Your task to perform on an android device: Open calendar and show me the first week of next month Image 0: 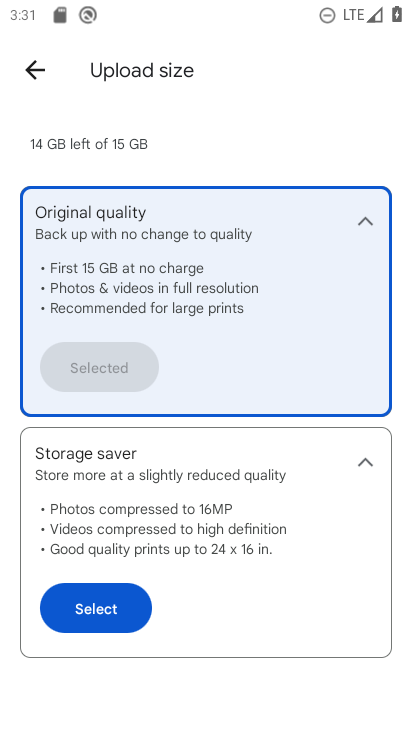
Step 0: press home button
Your task to perform on an android device: Open calendar and show me the first week of next month Image 1: 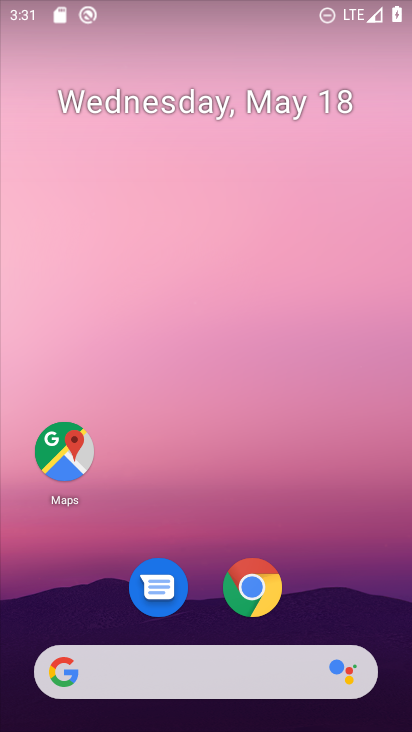
Step 1: drag from (194, 682) to (36, 2)
Your task to perform on an android device: Open calendar and show me the first week of next month Image 2: 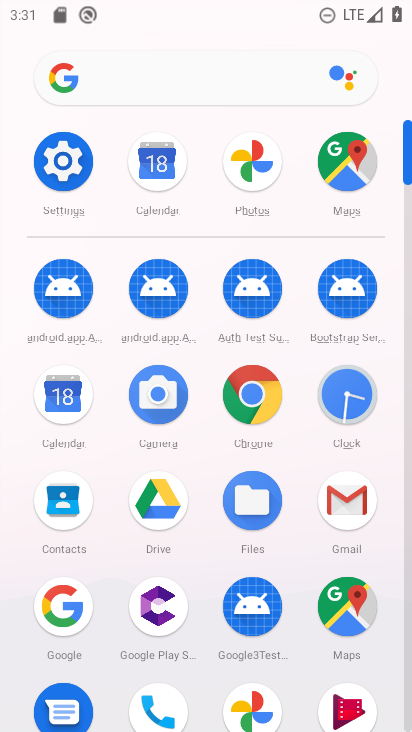
Step 2: click (52, 396)
Your task to perform on an android device: Open calendar and show me the first week of next month Image 3: 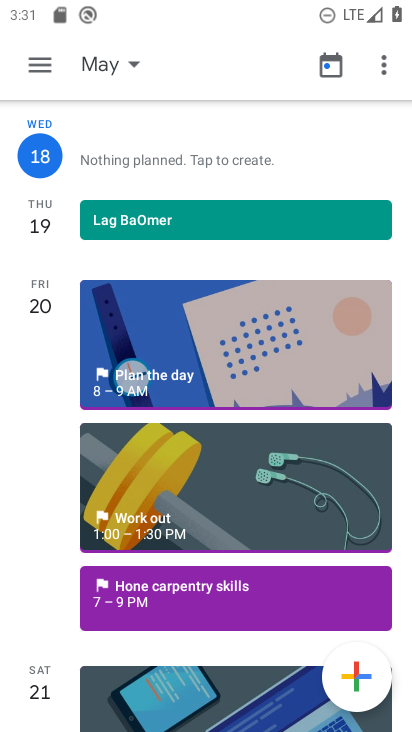
Step 3: click (40, 56)
Your task to perform on an android device: Open calendar and show me the first week of next month Image 4: 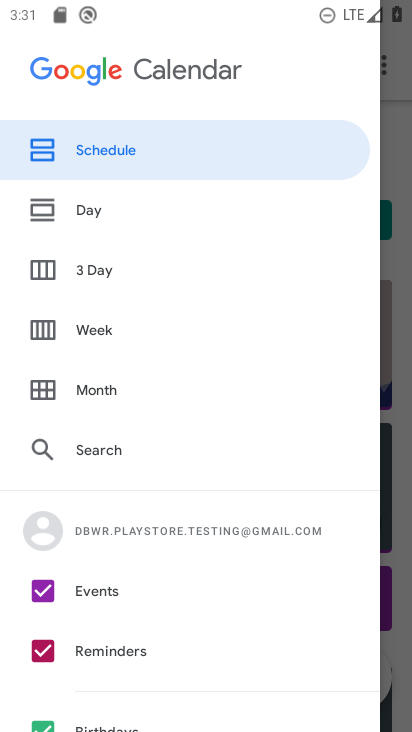
Step 4: click (107, 379)
Your task to perform on an android device: Open calendar and show me the first week of next month Image 5: 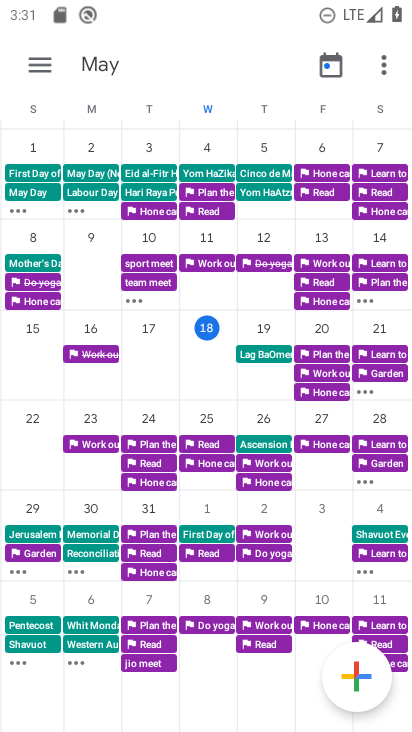
Step 5: task complete